Your task to perform on an android device: Open notification settings Image 0: 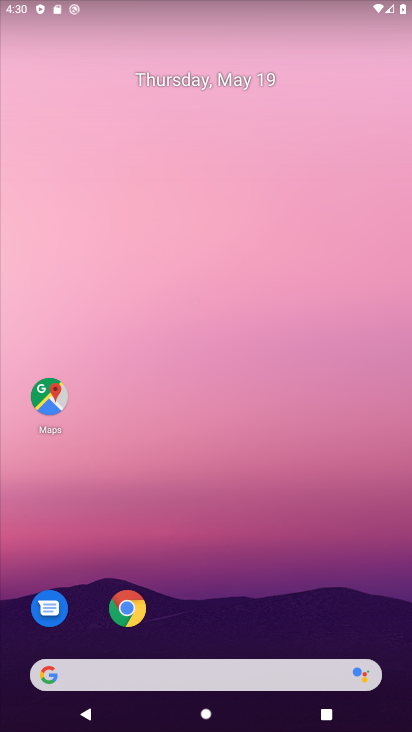
Step 0: drag from (268, 560) to (374, 55)
Your task to perform on an android device: Open notification settings Image 1: 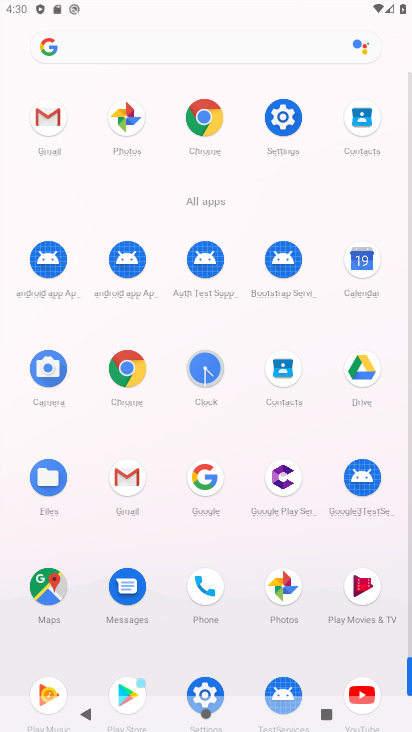
Step 1: click (291, 109)
Your task to perform on an android device: Open notification settings Image 2: 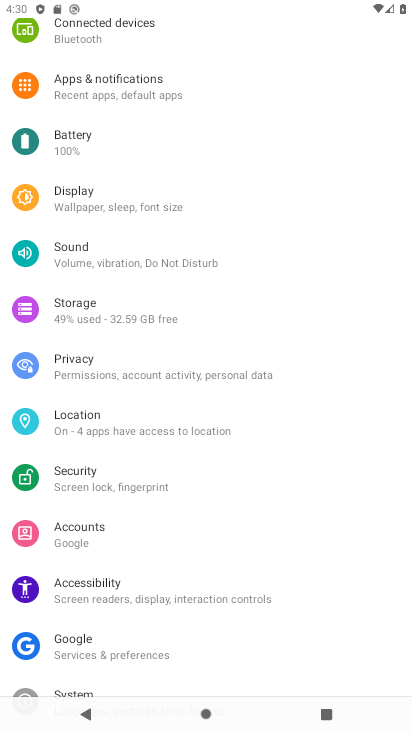
Step 2: drag from (187, 160) to (199, 527)
Your task to perform on an android device: Open notification settings Image 3: 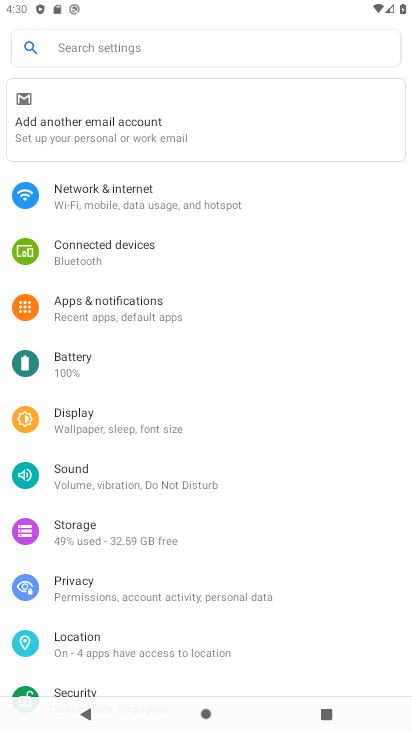
Step 3: click (160, 303)
Your task to perform on an android device: Open notification settings Image 4: 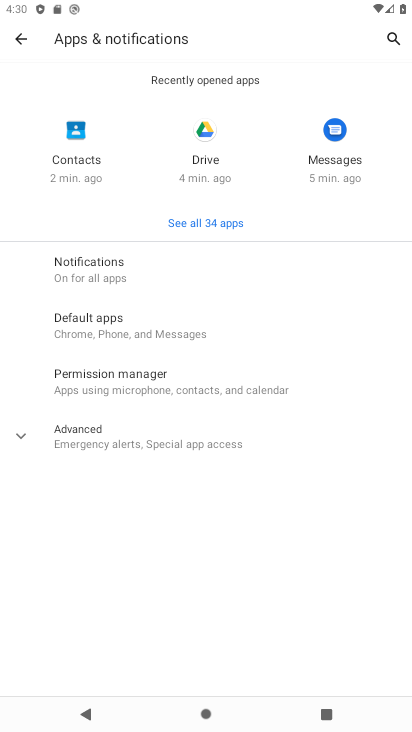
Step 4: click (111, 278)
Your task to perform on an android device: Open notification settings Image 5: 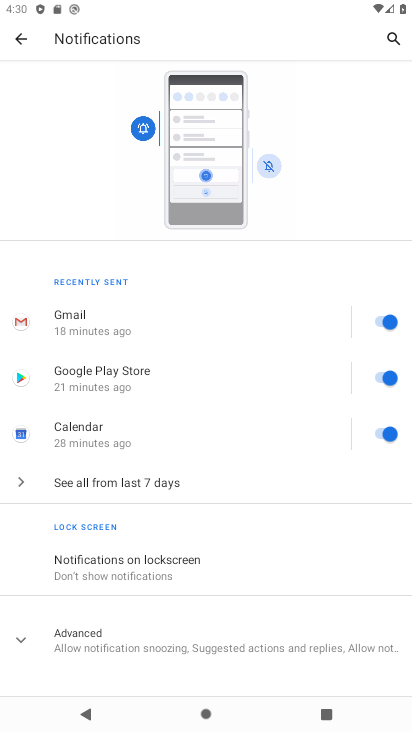
Step 5: task complete